Your task to perform on an android device: Open calendar and show me the first week of next month Image 0: 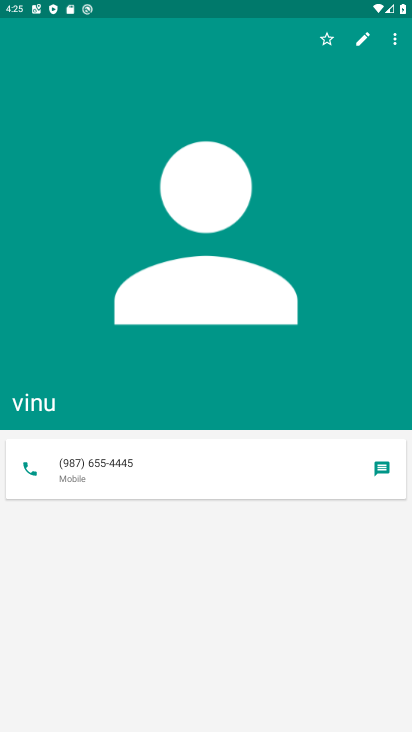
Step 0: press home button
Your task to perform on an android device: Open calendar and show me the first week of next month Image 1: 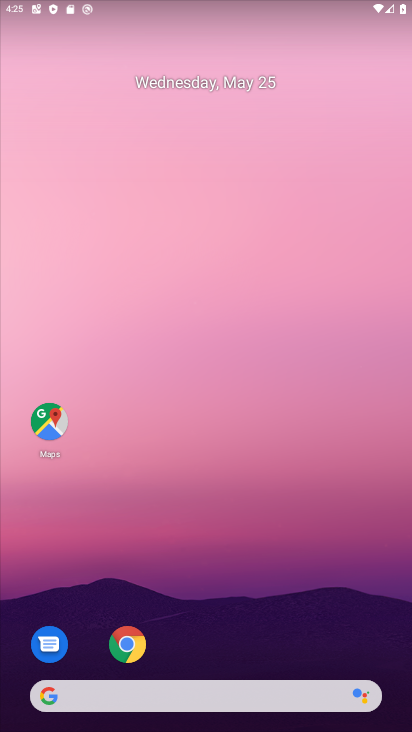
Step 1: drag from (273, 665) to (246, 3)
Your task to perform on an android device: Open calendar and show me the first week of next month Image 2: 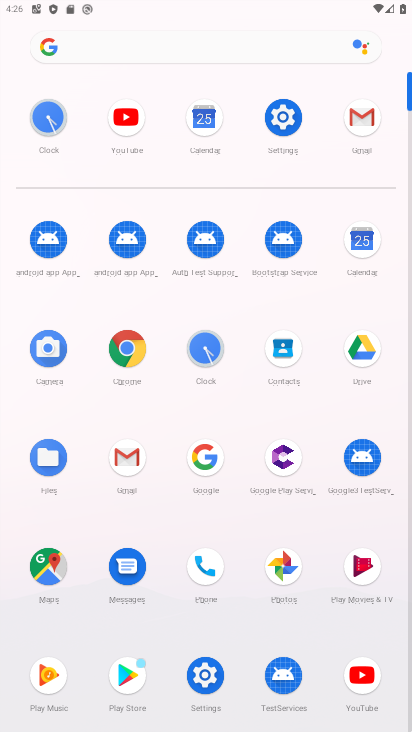
Step 2: click (210, 118)
Your task to perform on an android device: Open calendar and show me the first week of next month Image 3: 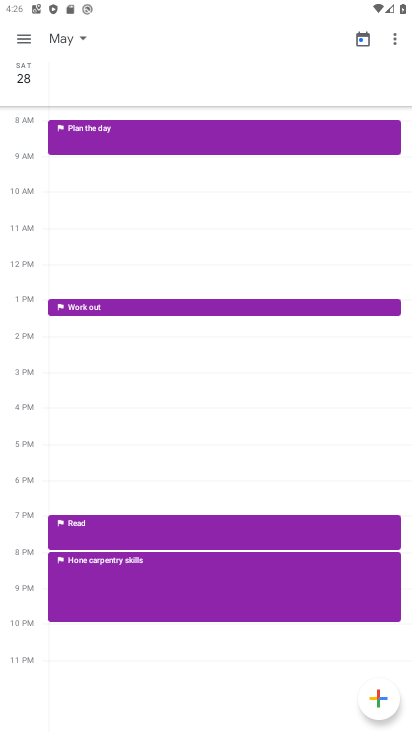
Step 3: click (82, 38)
Your task to perform on an android device: Open calendar and show me the first week of next month Image 4: 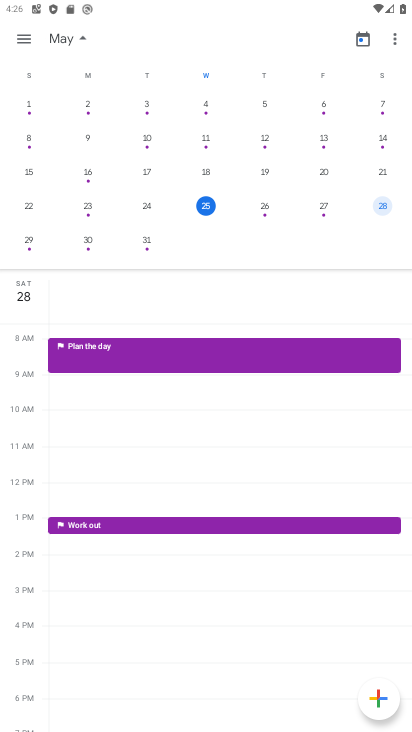
Step 4: drag from (340, 169) to (91, 181)
Your task to perform on an android device: Open calendar and show me the first week of next month Image 5: 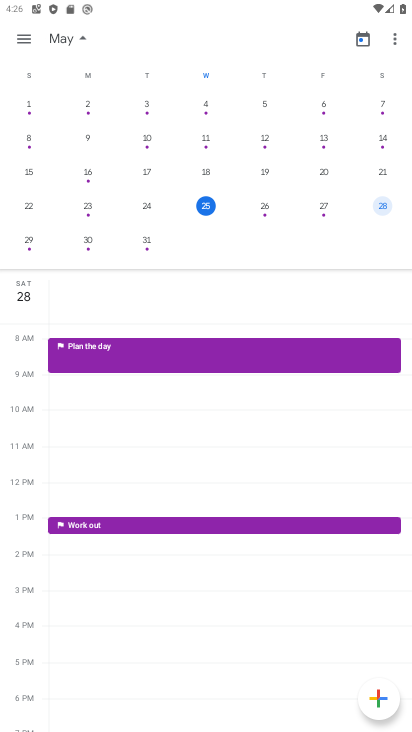
Step 5: drag from (335, 151) to (0, 131)
Your task to perform on an android device: Open calendar and show me the first week of next month Image 6: 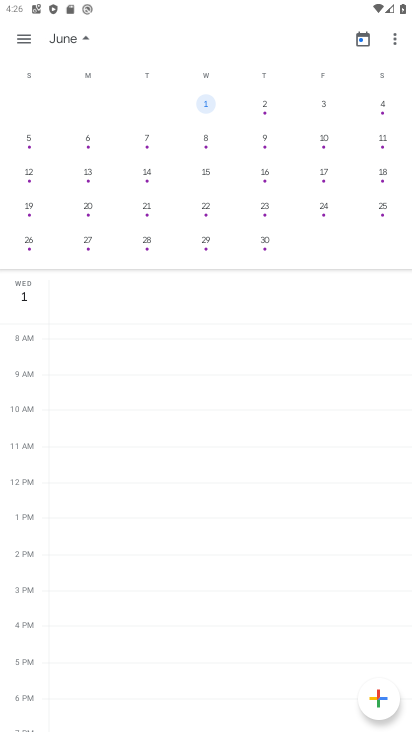
Step 6: click (20, 35)
Your task to perform on an android device: Open calendar and show me the first week of next month Image 7: 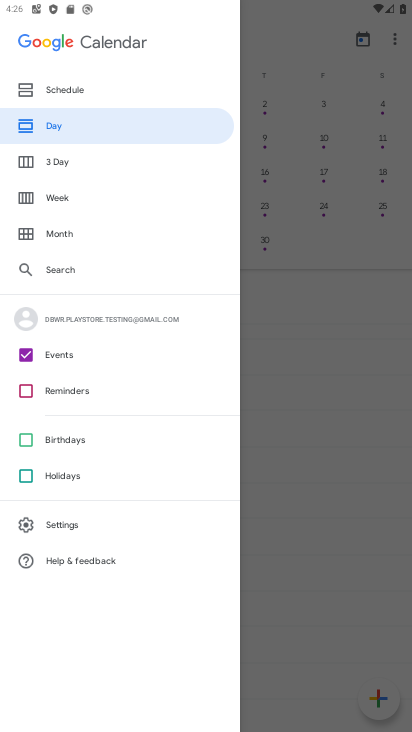
Step 7: click (51, 200)
Your task to perform on an android device: Open calendar and show me the first week of next month Image 8: 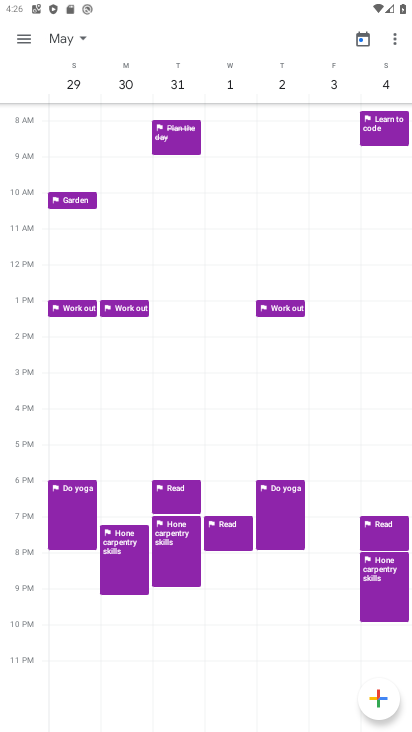
Step 8: task complete